Your task to perform on an android device: Open calendar and show me the second week of next month Image 0: 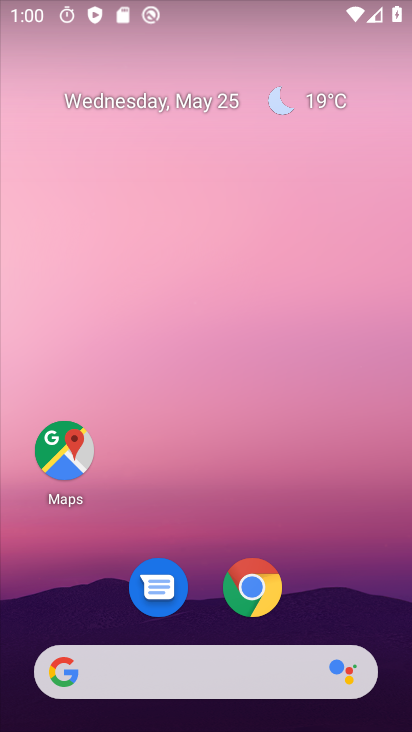
Step 0: drag from (216, 722) to (223, 54)
Your task to perform on an android device: Open calendar and show me the second week of next month Image 1: 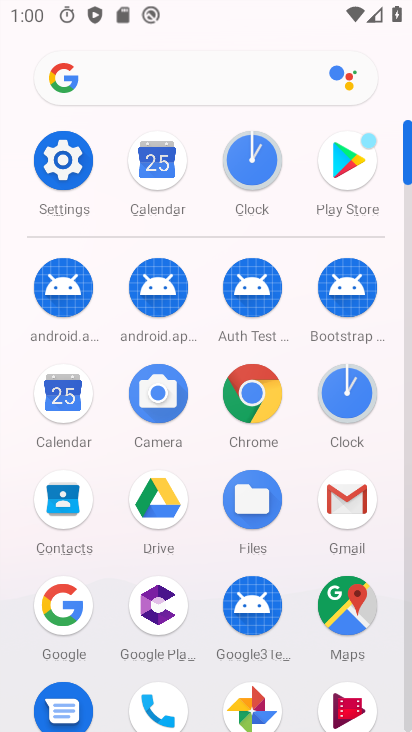
Step 1: click (72, 395)
Your task to perform on an android device: Open calendar and show me the second week of next month Image 2: 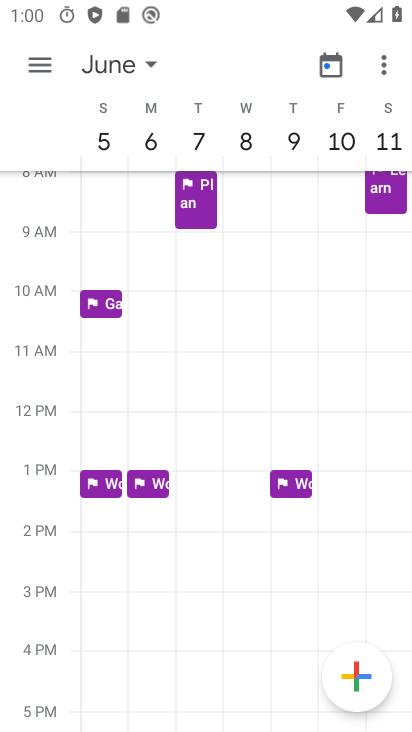
Step 2: drag from (377, 130) to (144, 125)
Your task to perform on an android device: Open calendar and show me the second week of next month Image 3: 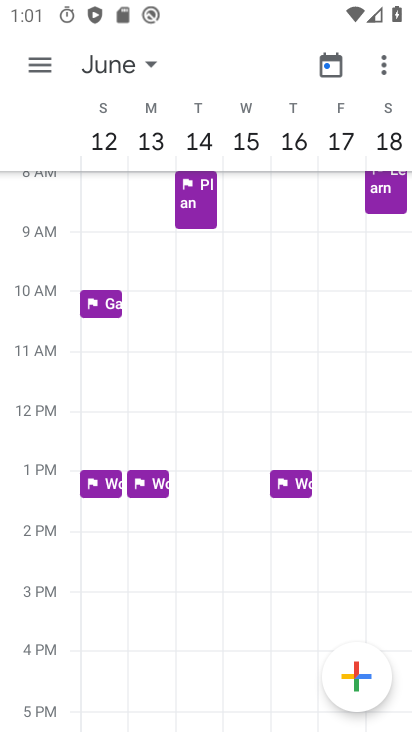
Step 3: click (155, 127)
Your task to perform on an android device: Open calendar and show me the second week of next month Image 4: 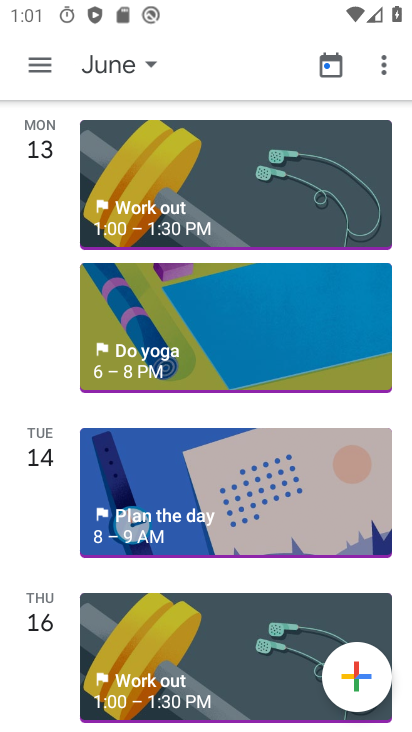
Step 4: click (43, 63)
Your task to perform on an android device: Open calendar and show me the second week of next month Image 5: 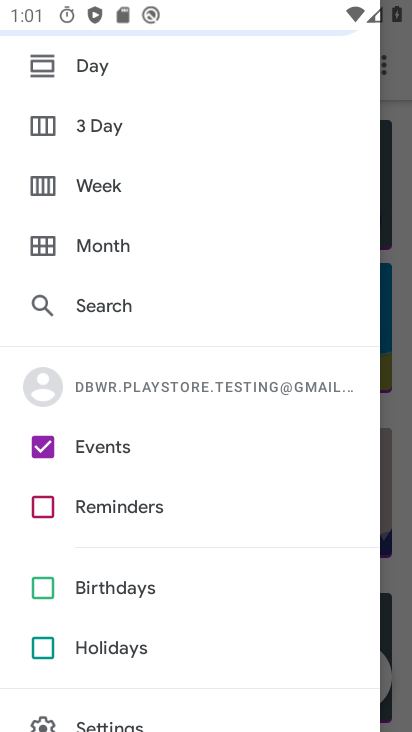
Step 5: click (91, 183)
Your task to perform on an android device: Open calendar and show me the second week of next month Image 6: 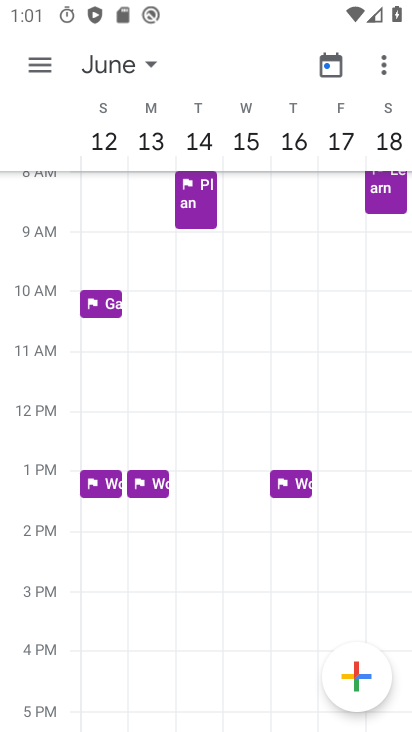
Step 6: task complete